Your task to perform on an android device: Open calendar and show me the first week of next month Image 0: 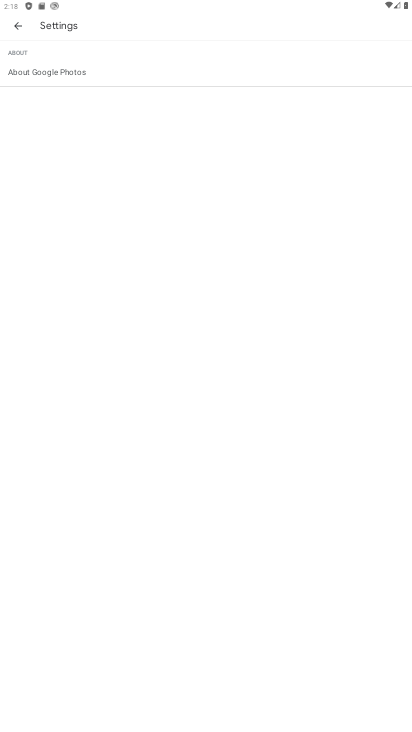
Step 0: press home button
Your task to perform on an android device: Open calendar and show me the first week of next month Image 1: 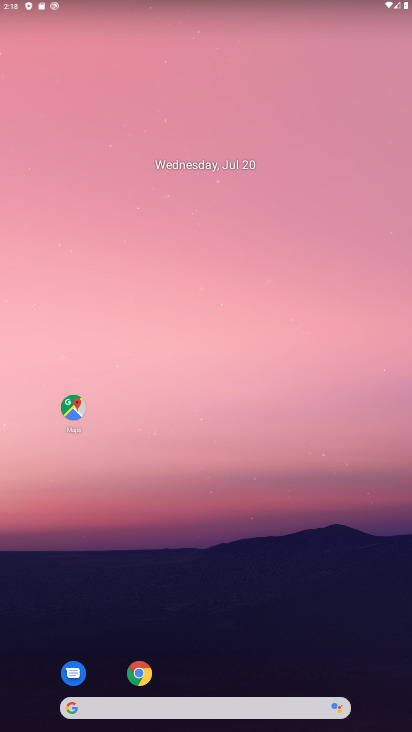
Step 1: drag from (230, 682) to (139, 12)
Your task to perform on an android device: Open calendar and show me the first week of next month Image 2: 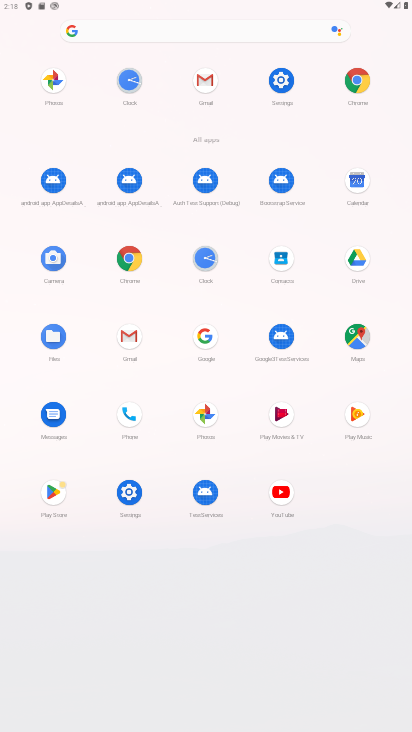
Step 2: click (355, 184)
Your task to perform on an android device: Open calendar and show me the first week of next month Image 3: 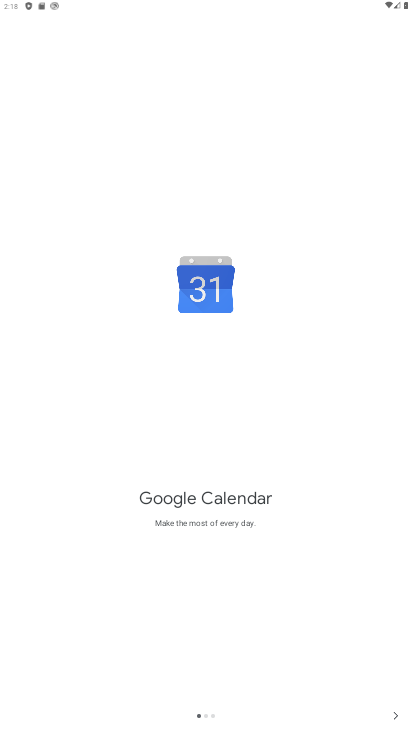
Step 3: click (394, 709)
Your task to perform on an android device: Open calendar and show me the first week of next month Image 4: 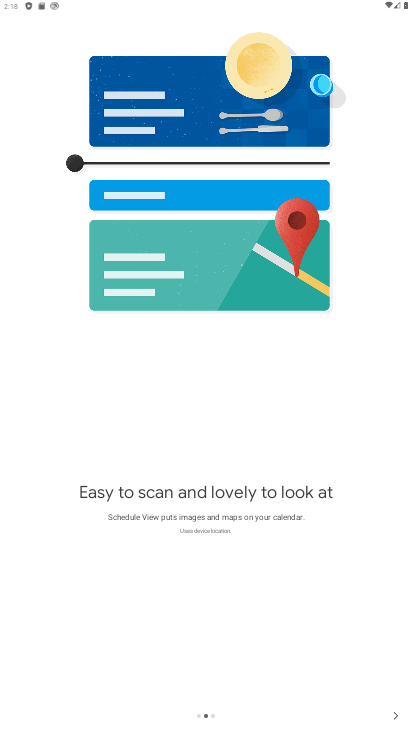
Step 4: click (394, 709)
Your task to perform on an android device: Open calendar and show me the first week of next month Image 5: 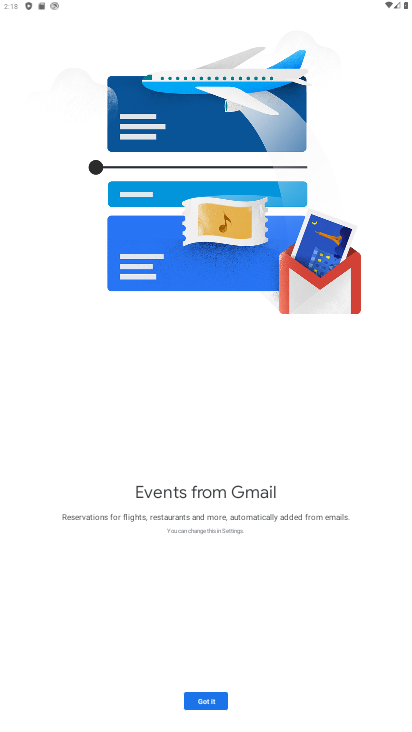
Step 5: click (207, 698)
Your task to perform on an android device: Open calendar and show me the first week of next month Image 6: 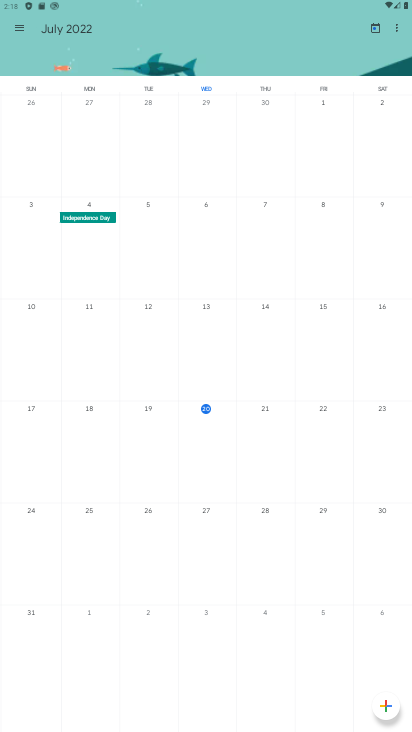
Step 6: drag from (372, 417) to (0, 339)
Your task to perform on an android device: Open calendar and show me the first week of next month Image 7: 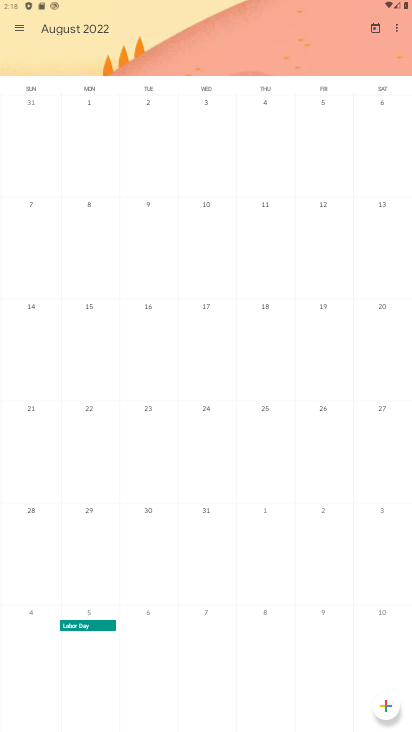
Step 7: click (84, 103)
Your task to perform on an android device: Open calendar and show me the first week of next month Image 8: 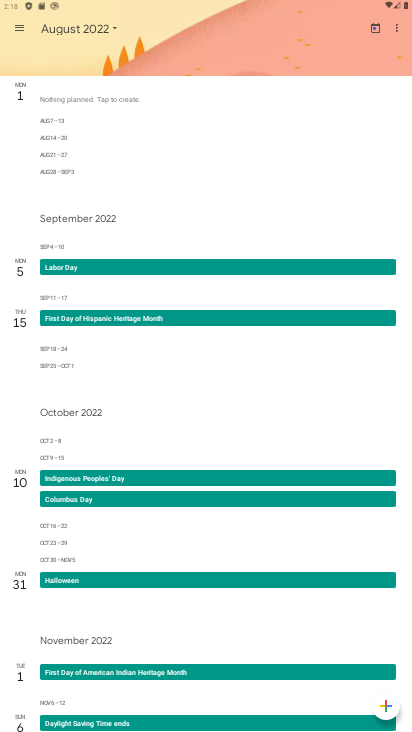
Step 8: click (17, 24)
Your task to perform on an android device: Open calendar and show me the first week of next month Image 9: 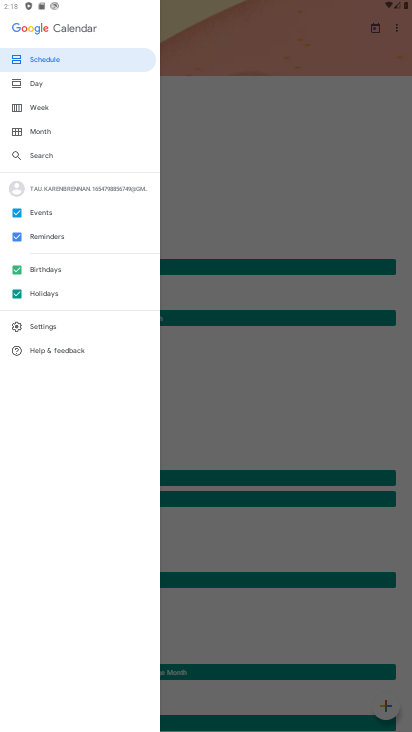
Step 9: click (45, 111)
Your task to perform on an android device: Open calendar and show me the first week of next month Image 10: 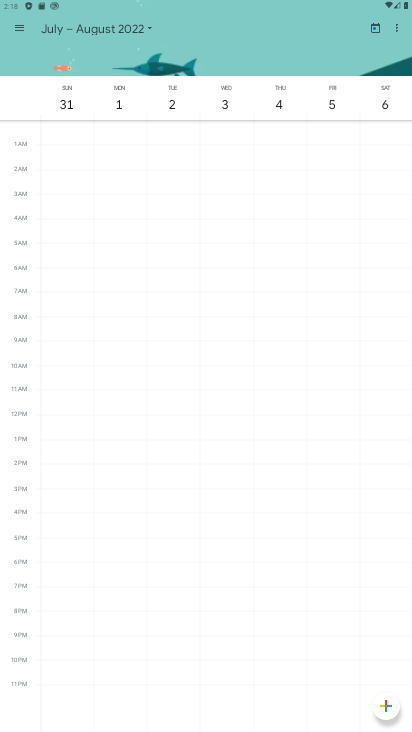
Step 10: task complete